Your task to perform on an android device: set the timer Image 0: 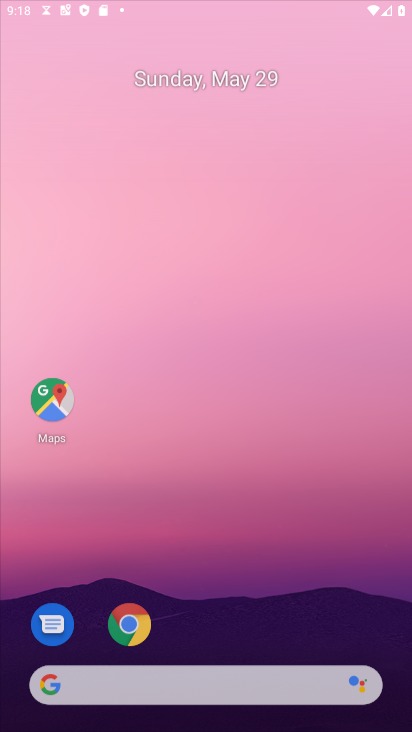
Step 0: drag from (282, 502) to (306, 143)
Your task to perform on an android device: set the timer Image 1: 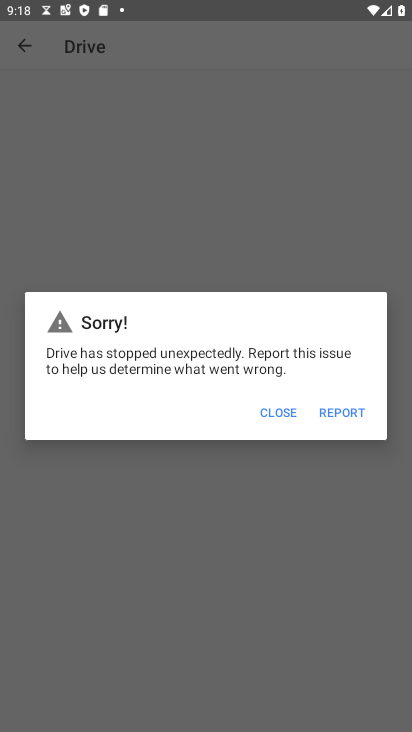
Step 1: press home button
Your task to perform on an android device: set the timer Image 2: 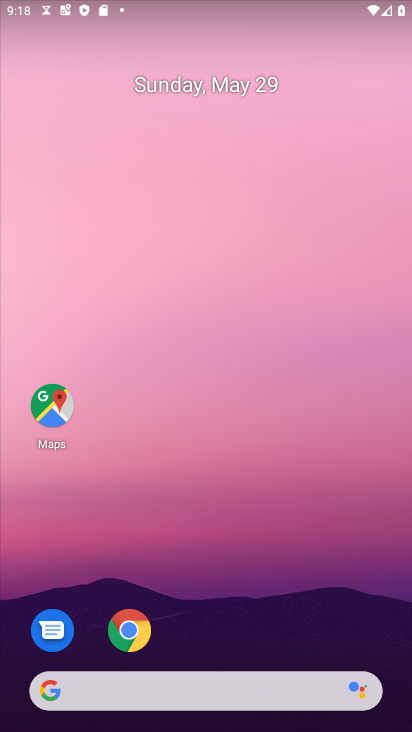
Step 2: drag from (244, 632) to (277, 0)
Your task to perform on an android device: set the timer Image 3: 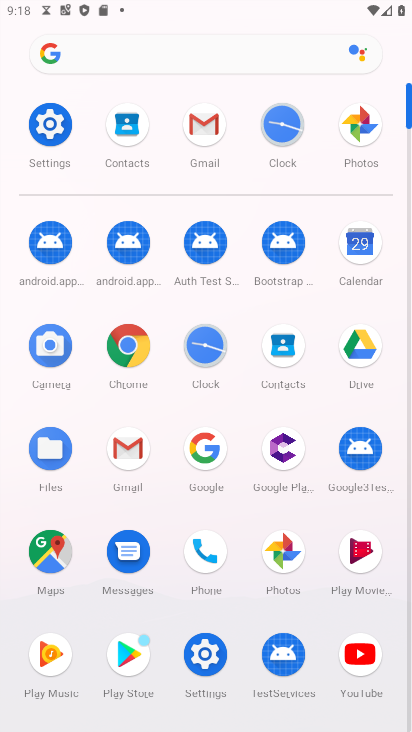
Step 3: click (289, 138)
Your task to perform on an android device: set the timer Image 4: 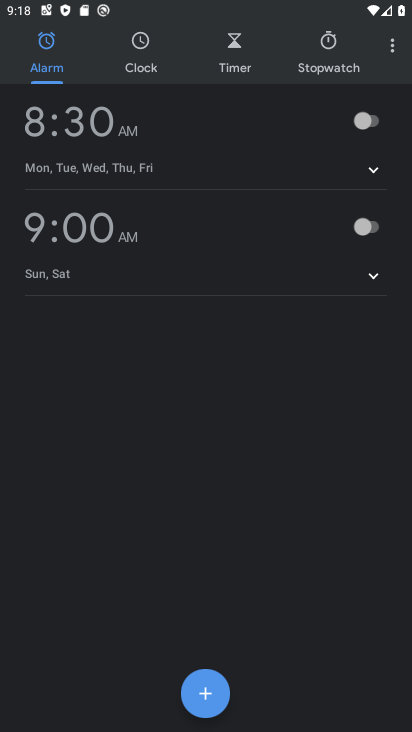
Step 4: click (246, 53)
Your task to perform on an android device: set the timer Image 5: 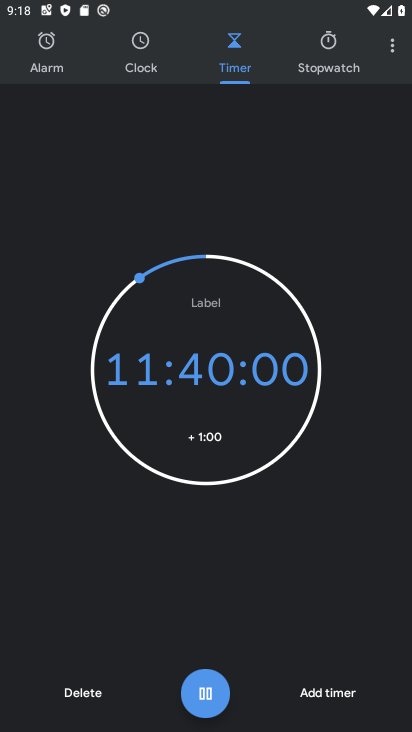
Step 5: task complete